Your task to perform on an android device: Open Amazon Image 0: 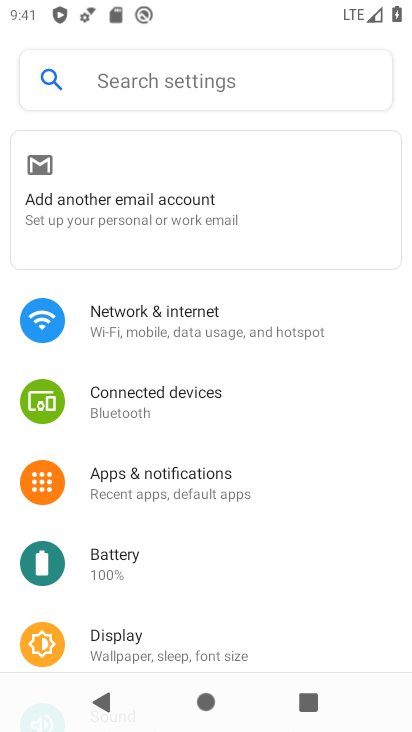
Step 0: press home button
Your task to perform on an android device: Open Amazon Image 1: 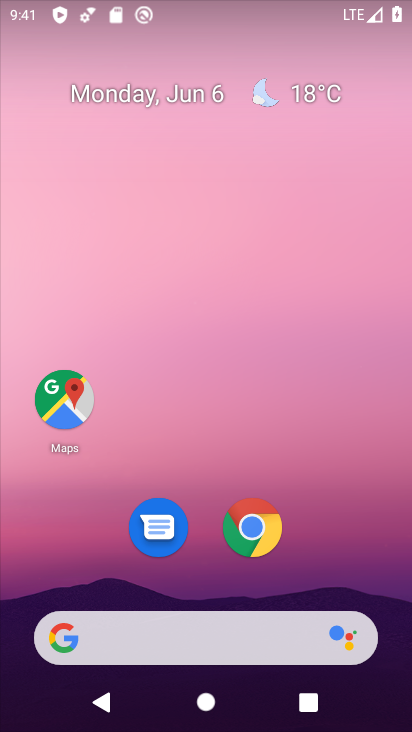
Step 1: drag from (348, 528) to (365, 117)
Your task to perform on an android device: Open Amazon Image 2: 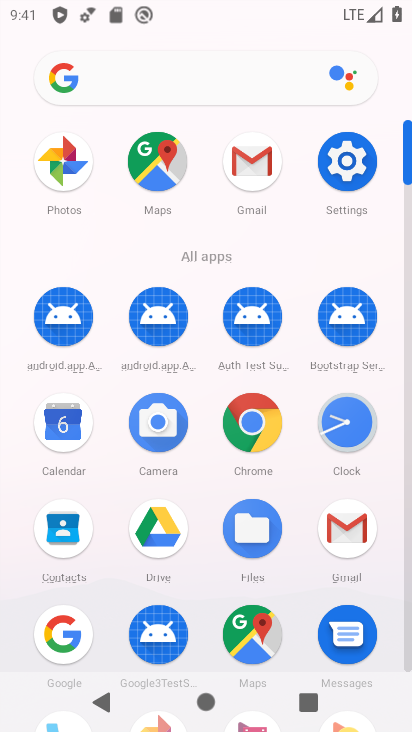
Step 2: click (247, 440)
Your task to perform on an android device: Open Amazon Image 3: 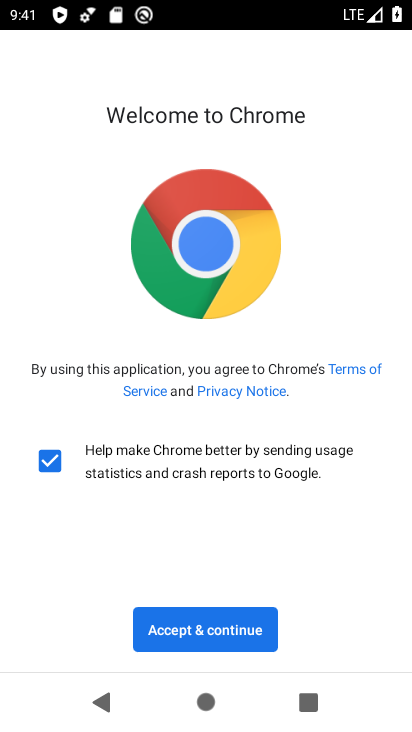
Step 3: click (228, 634)
Your task to perform on an android device: Open Amazon Image 4: 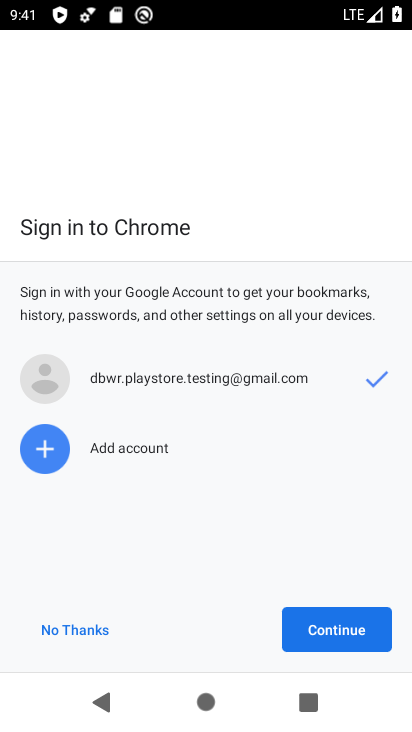
Step 4: click (356, 631)
Your task to perform on an android device: Open Amazon Image 5: 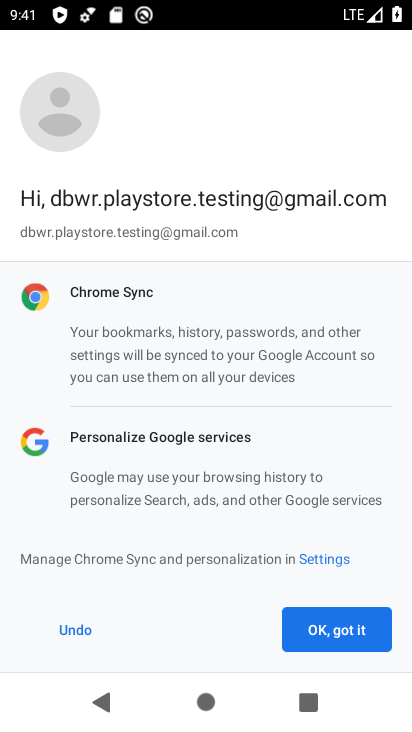
Step 5: click (356, 631)
Your task to perform on an android device: Open Amazon Image 6: 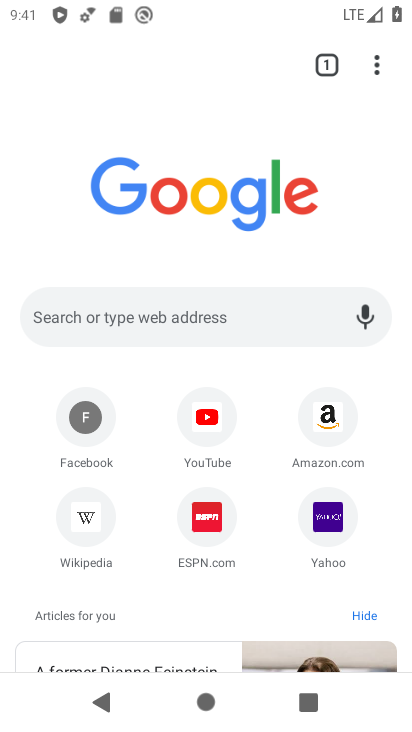
Step 6: click (194, 313)
Your task to perform on an android device: Open Amazon Image 7: 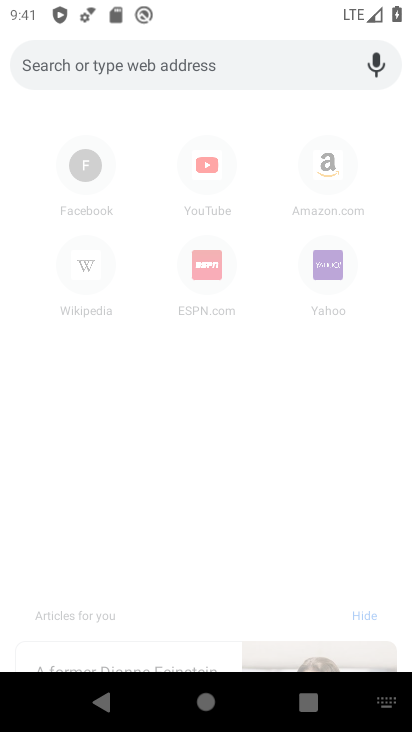
Step 7: type "amazon"
Your task to perform on an android device: Open Amazon Image 8: 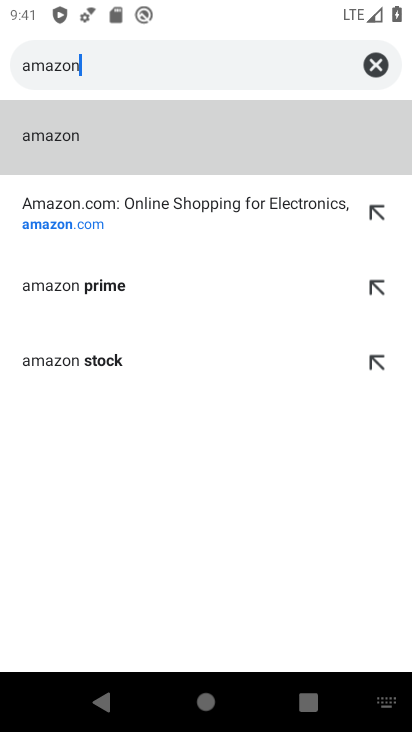
Step 8: click (147, 223)
Your task to perform on an android device: Open Amazon Image 9: 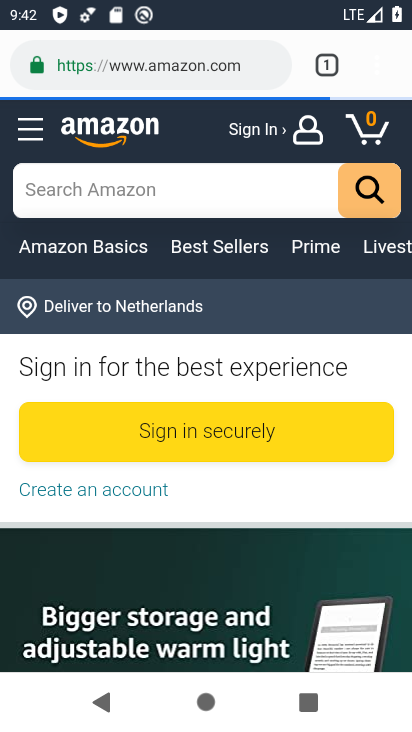
Step 9: task complete